Your task to perform on an android device: open wifi settings Image 0: 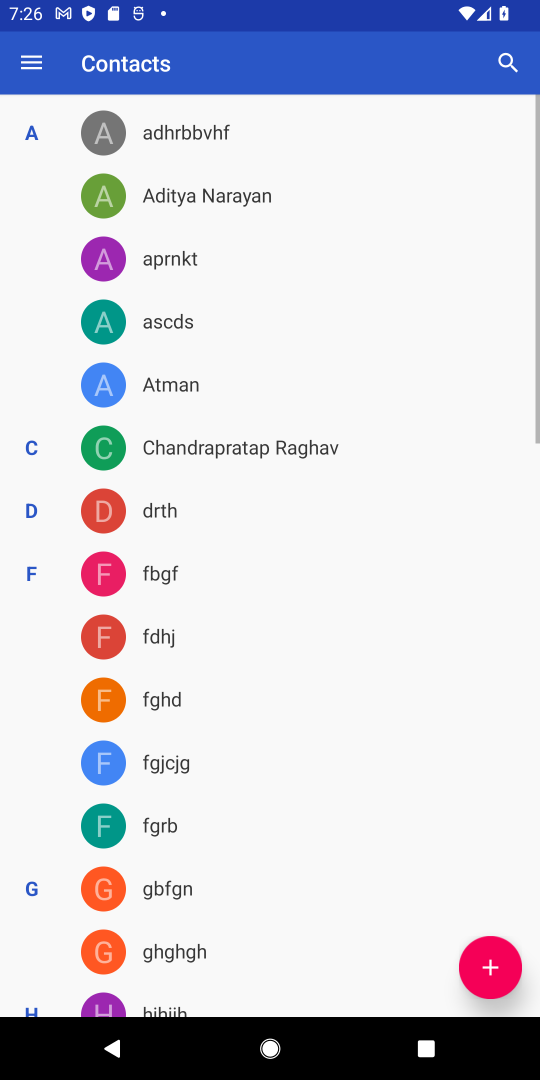
Step 0: press home button
Your task to perform on an android device: open wifi settings Image 1: 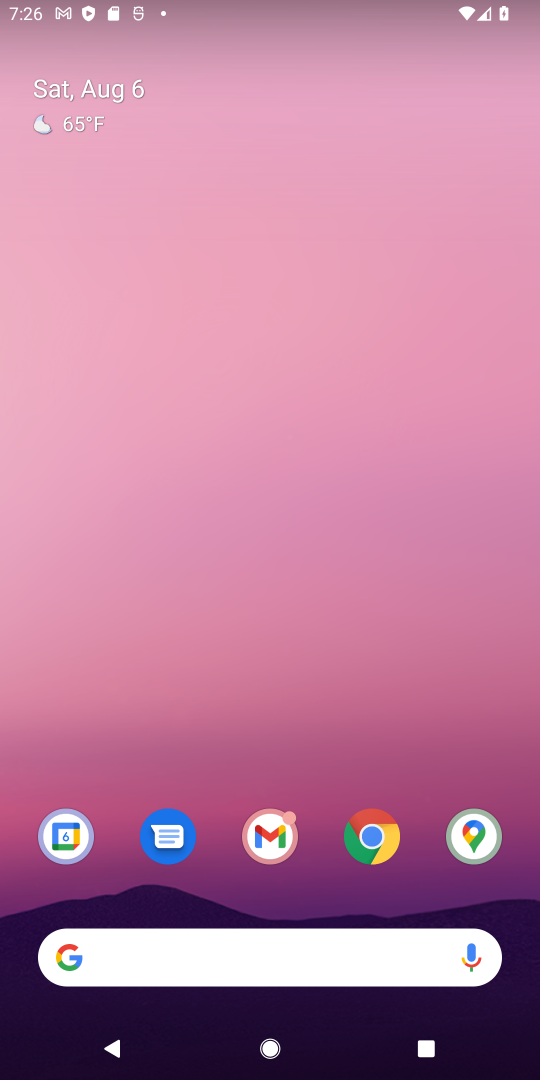
Step 1: drag from (505, 993) to (264, 112)
Your task to perform on an android device: open wifi settings Image 2: 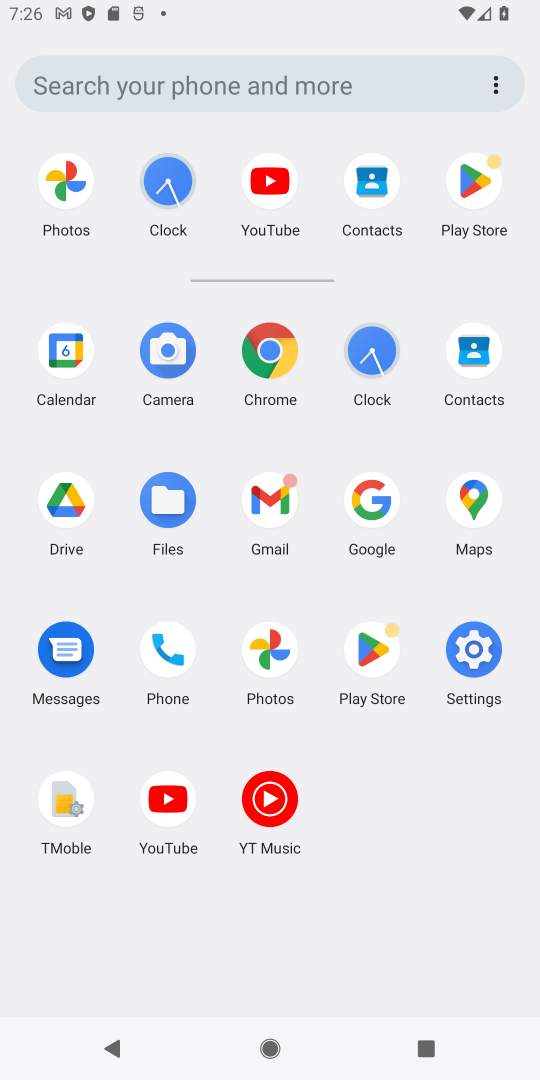
Step 2: click (468, 661)
Your task to perform on an android device: open wifi settings Image 3: 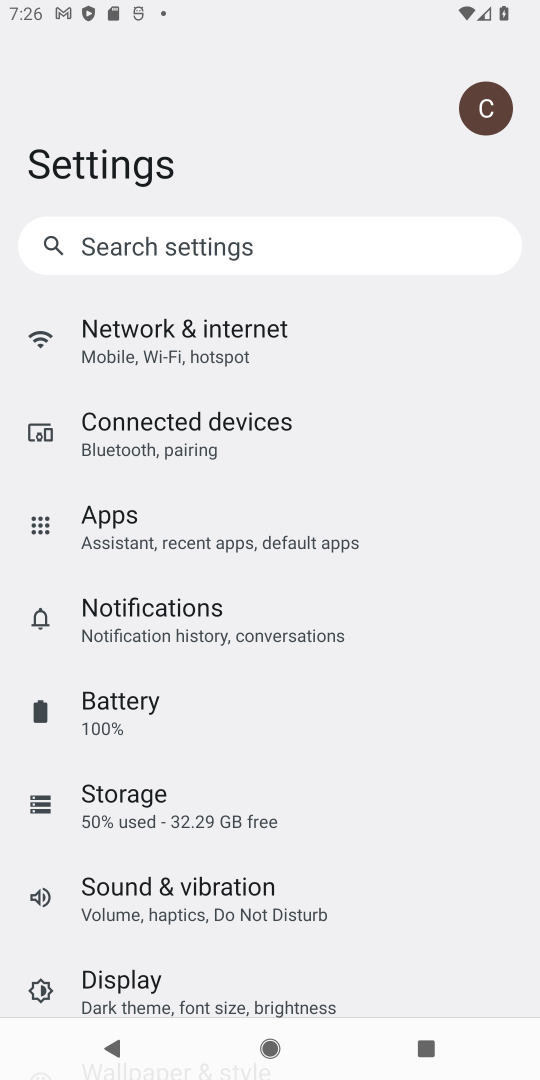
Step 3: click (175, 356)
Your task to perform on an android device: open wifi settings Image 4: 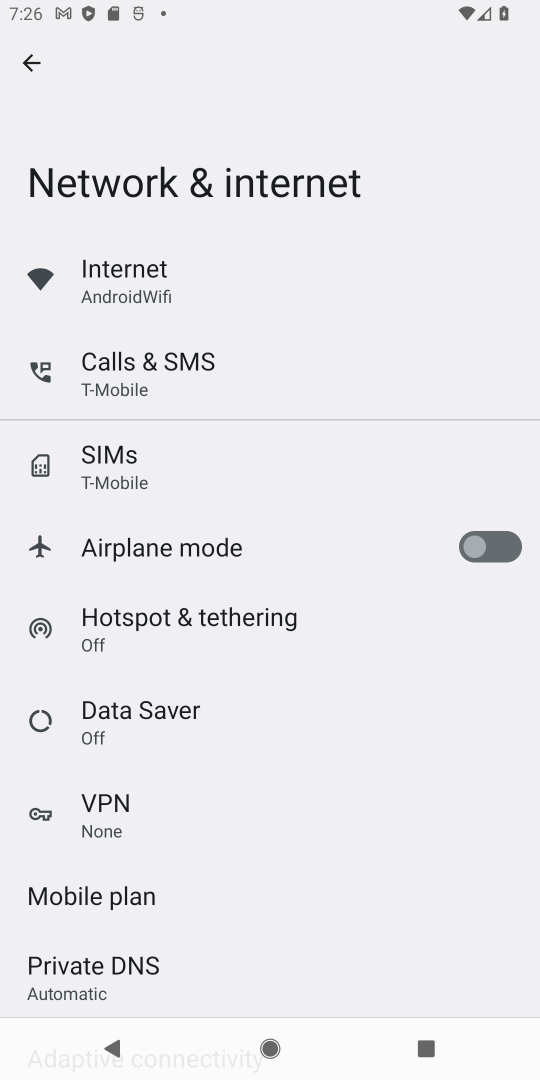
Step 4: task complete